Your task to perform on an android device: Go to battery settings Image 0: 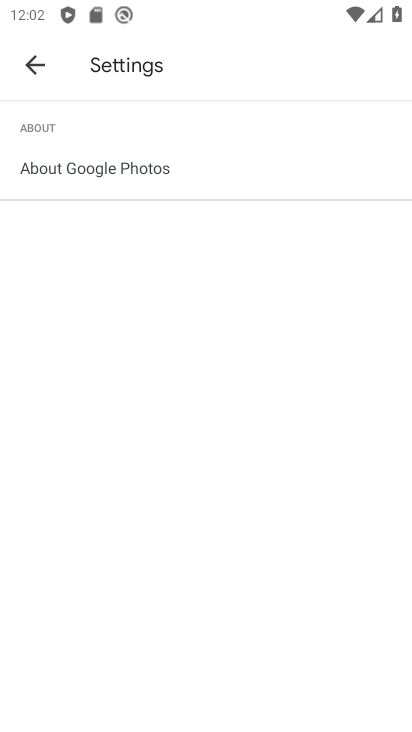
Step 0: press home button
Your task to perform on an android device: Go to battery settings Image 1: 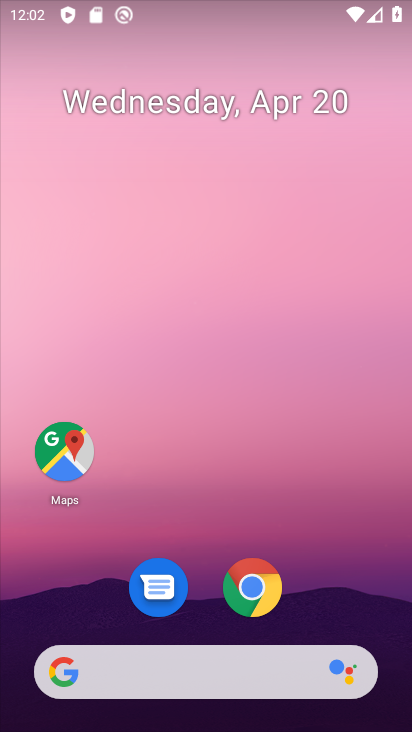
Step 1: drag from (194, 609) to (280, 135)
Your task to perform on an android device: Go to battery settings Image 2: 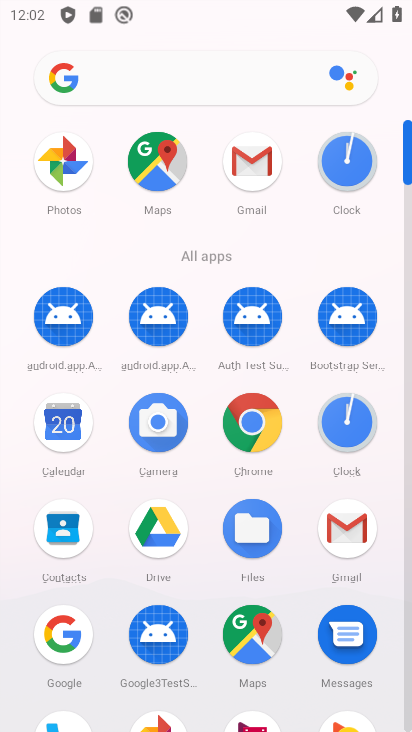
Step 2: drag from (190, 550) to (227, 248)
Your task to perform on an android device: Go to battery settings Image 3: 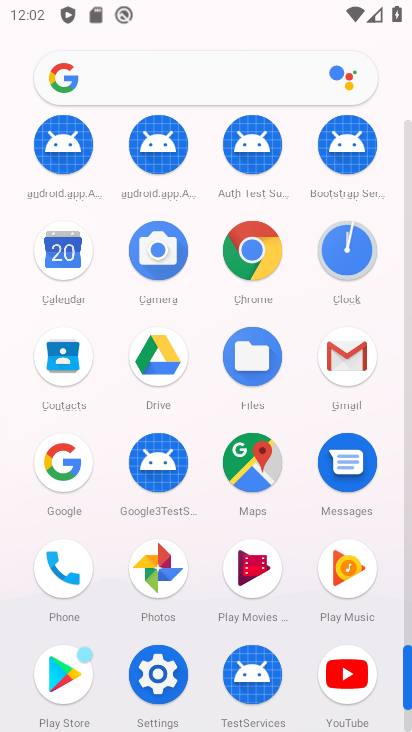
Step 3: click (156, 673)
Your task to perform on an android device: Go to battery settings Image 4: 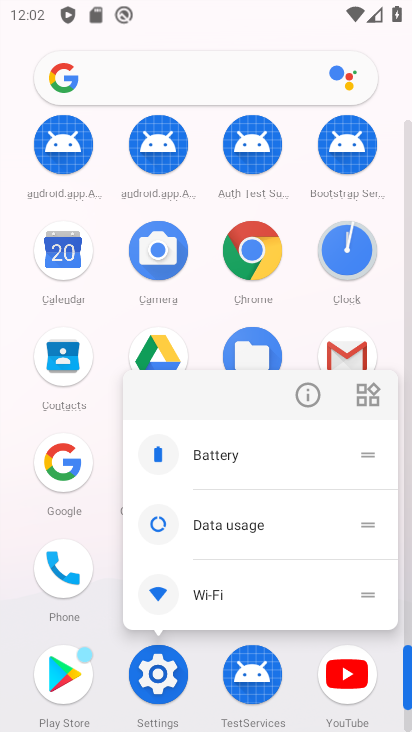
Step 4: click (156, 671)
Your task to perform on an android device: Go to battery settings Image 5: 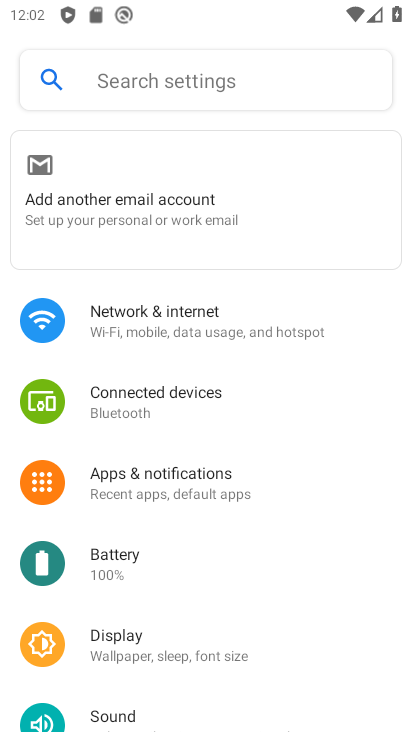
Step 5: click (144, 559)
Your task to perform on an android device: Go to battery settings Image 6: 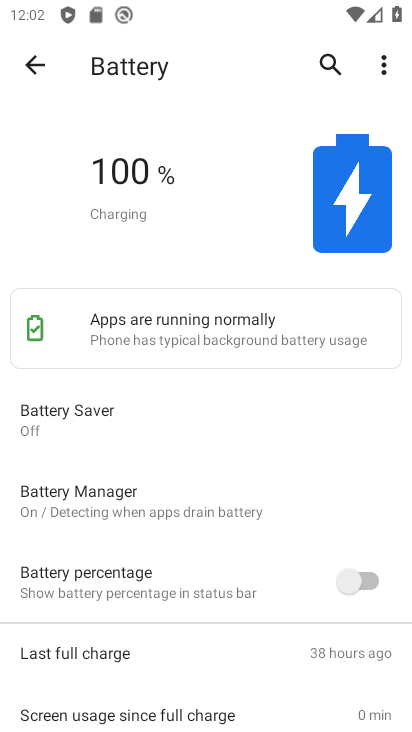
Step 6: task complete